Your task to perform on an android device: What is the news today? Image 0: 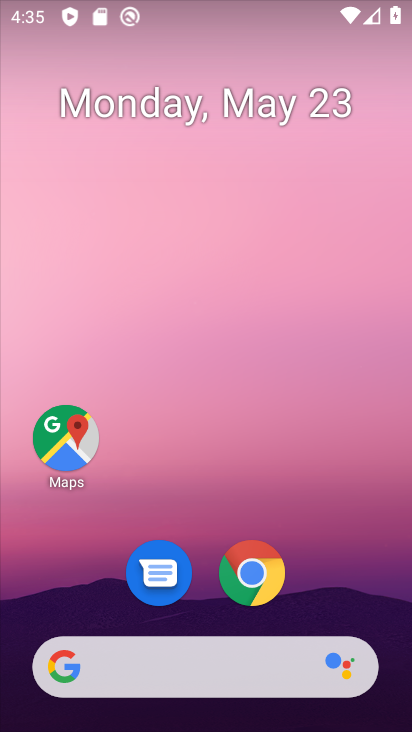
Step 0: drag from (209, 704) to (183, 129)
Your task to perform on an android device: What is the news today? Image 1: 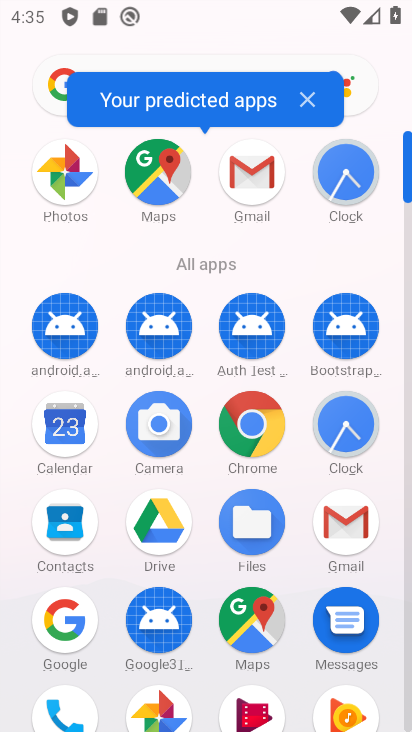
Step 1: click (60, 621)
Your task to perform on an android device: What is the news today? Image 2: 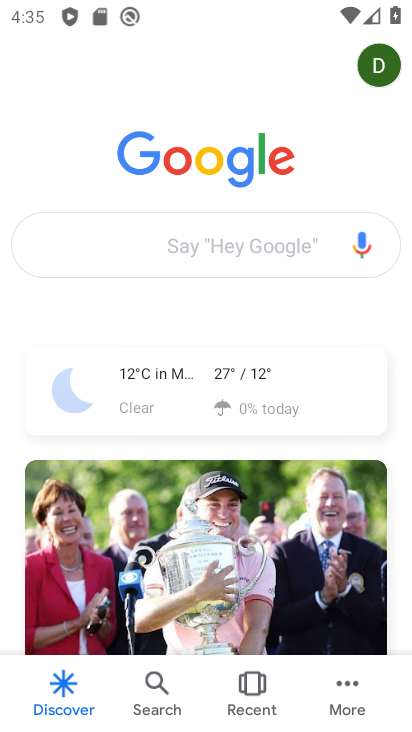
Step 2: task complete